Your task to perform on an android device: add a contact in the contacts app Image 0: 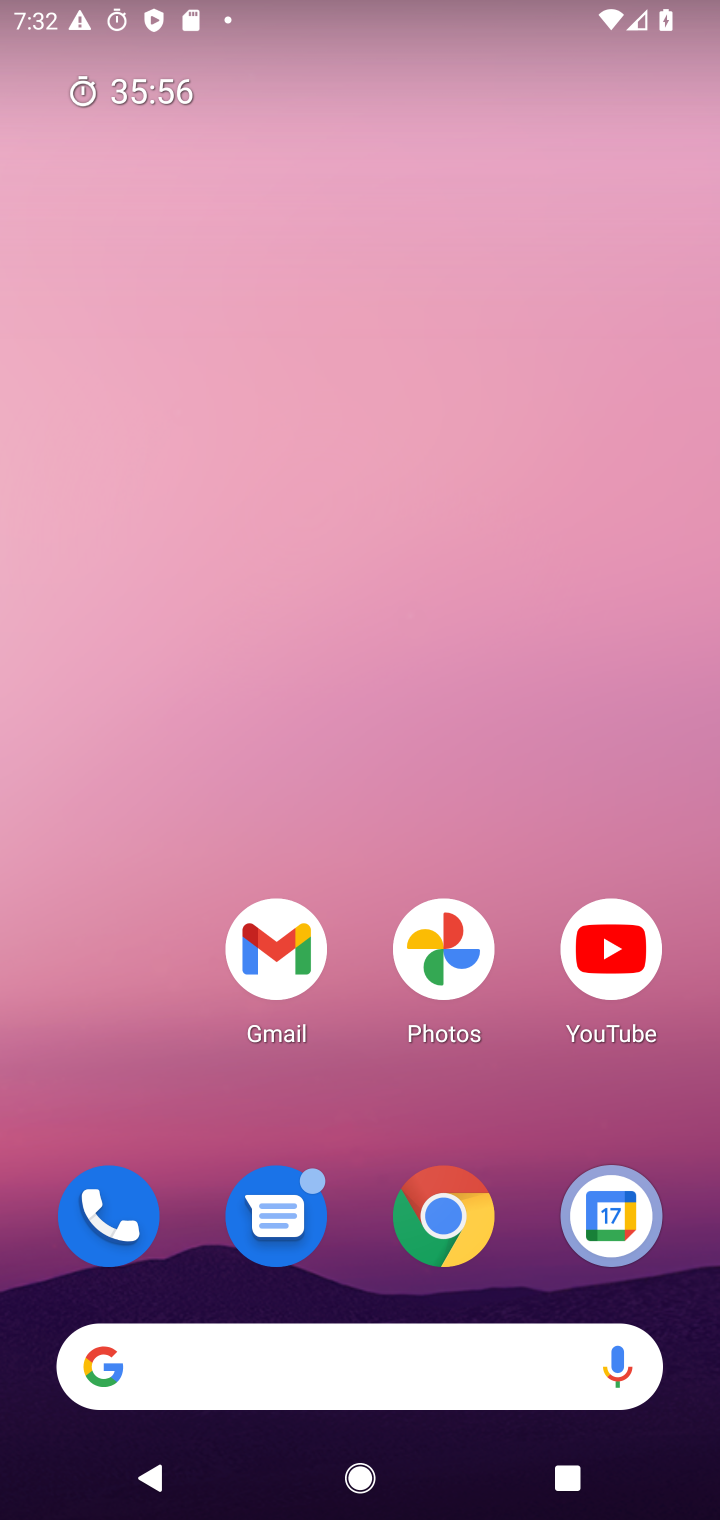
Step 0: drag from (526, 1132) to (407, 111)
Your task to perform on an android device: add a contact in the contacts app Image 1: 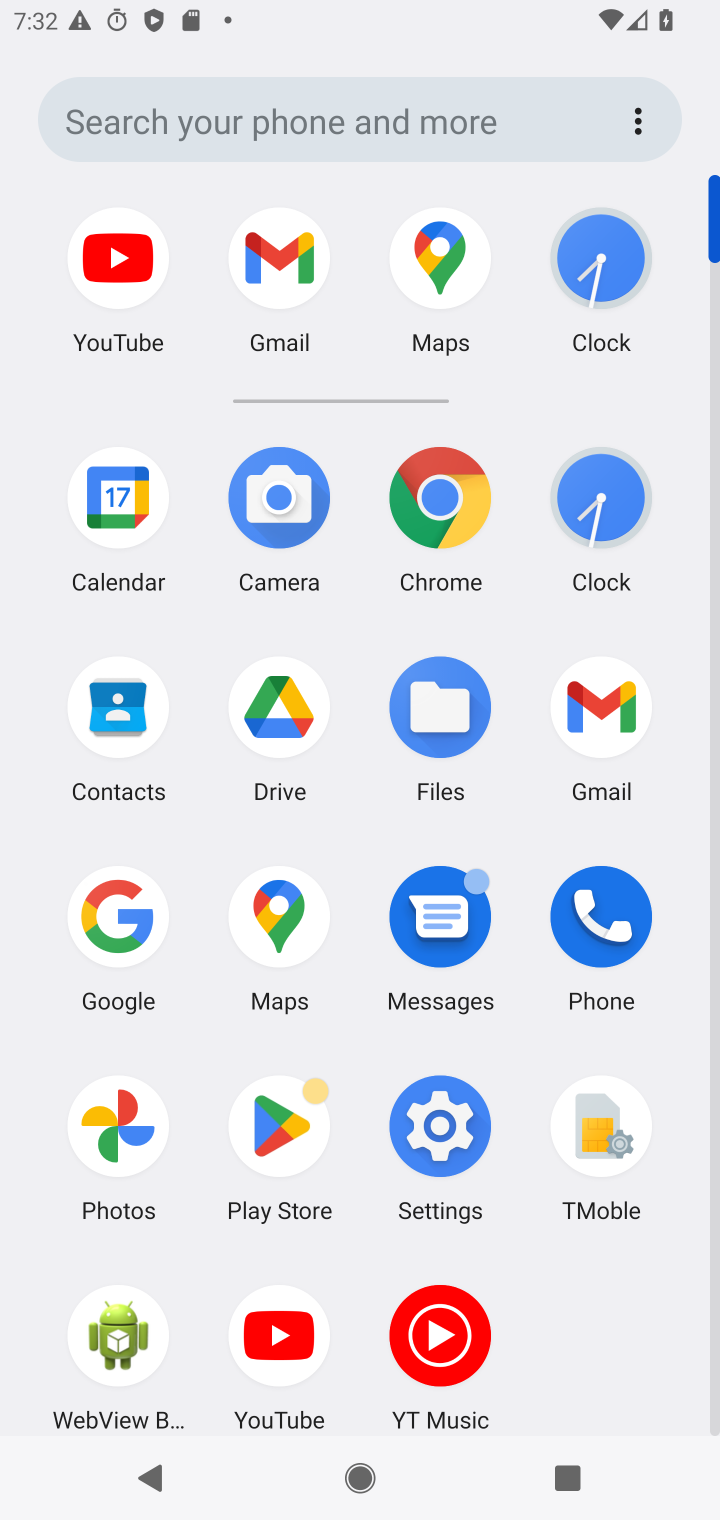
Step 1: click (136, 710)
Your task to perform on an android device: add a contact in the contacts app Image 2: 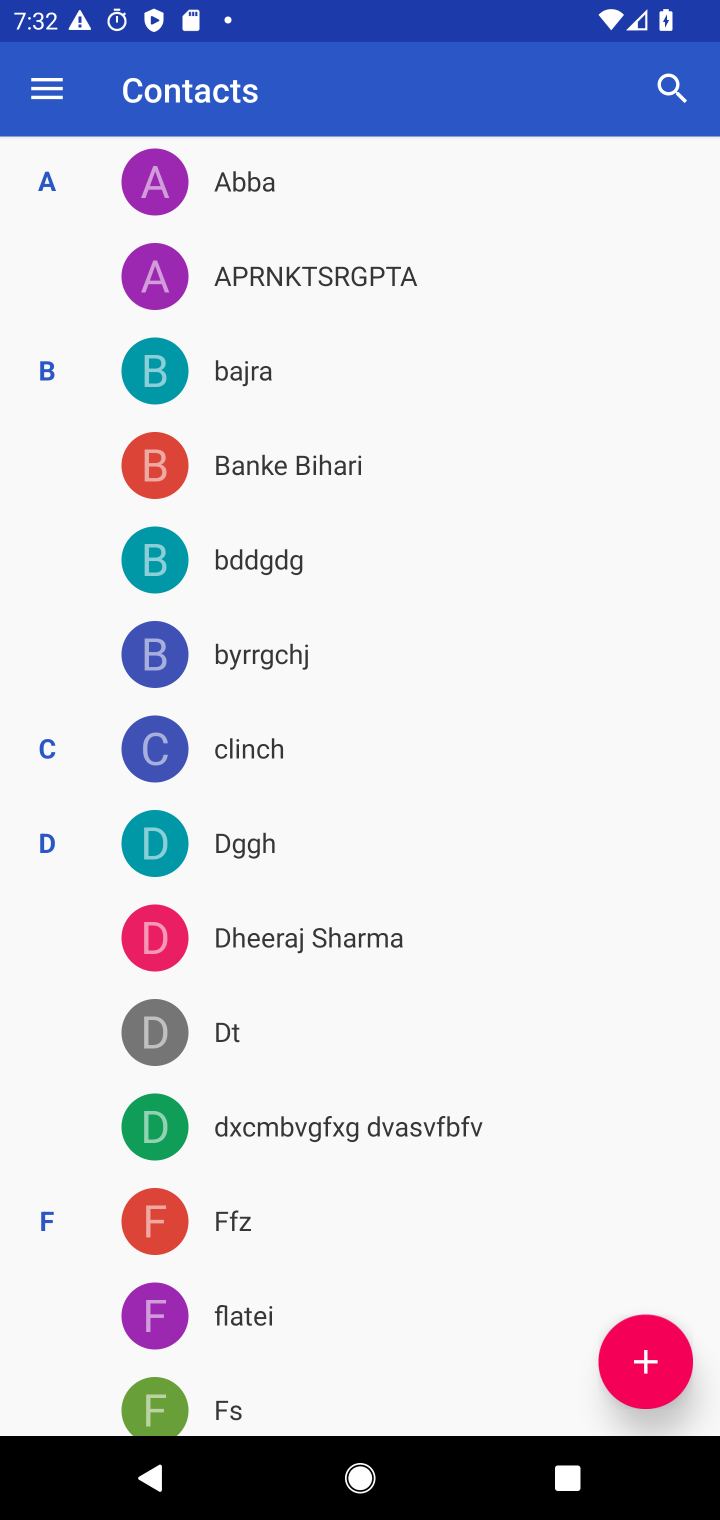
Step 2: click (652, 1380)
Your task to perform on an android device: add a contact in the contacts app Image 3: 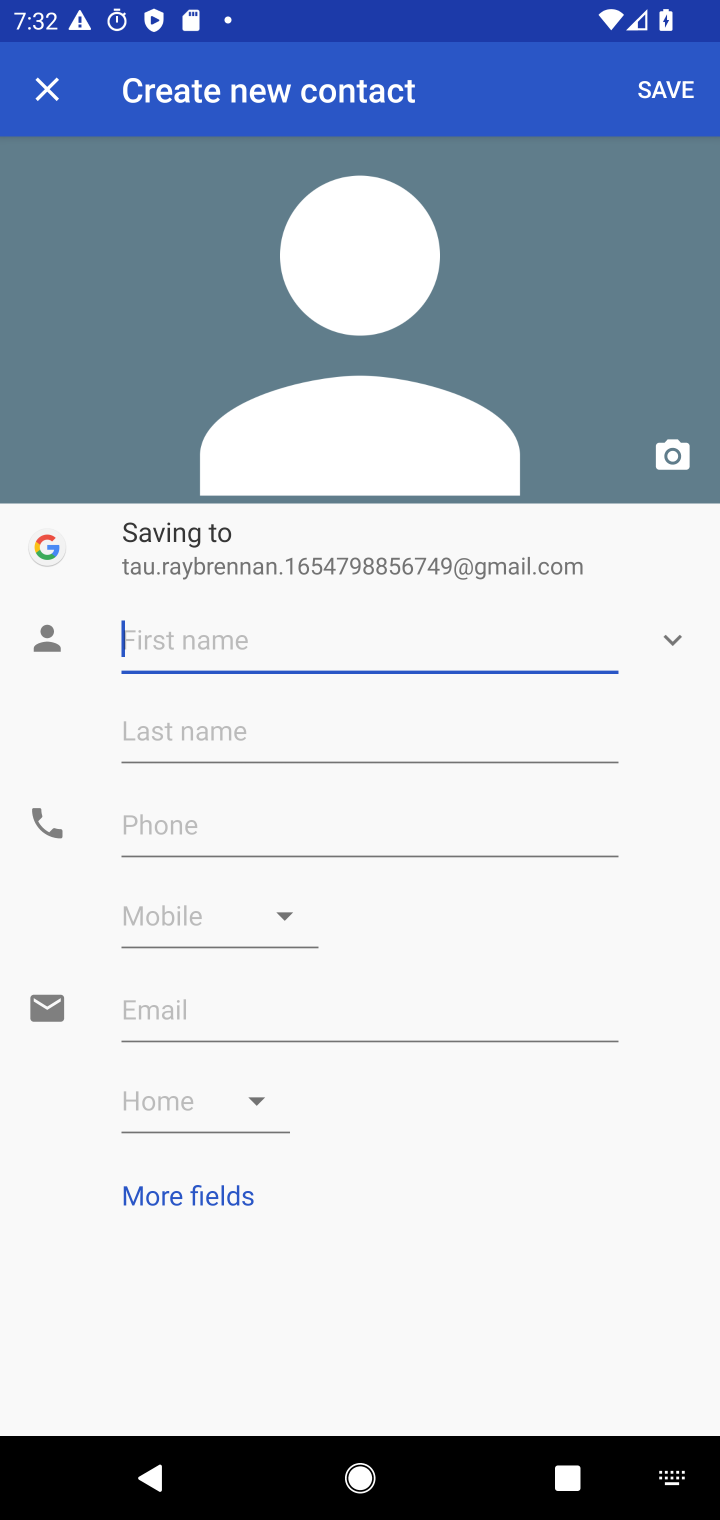
Step 3: type "mmm"
Your task to perform on an android device: add a contact in the contacts app Image 4: 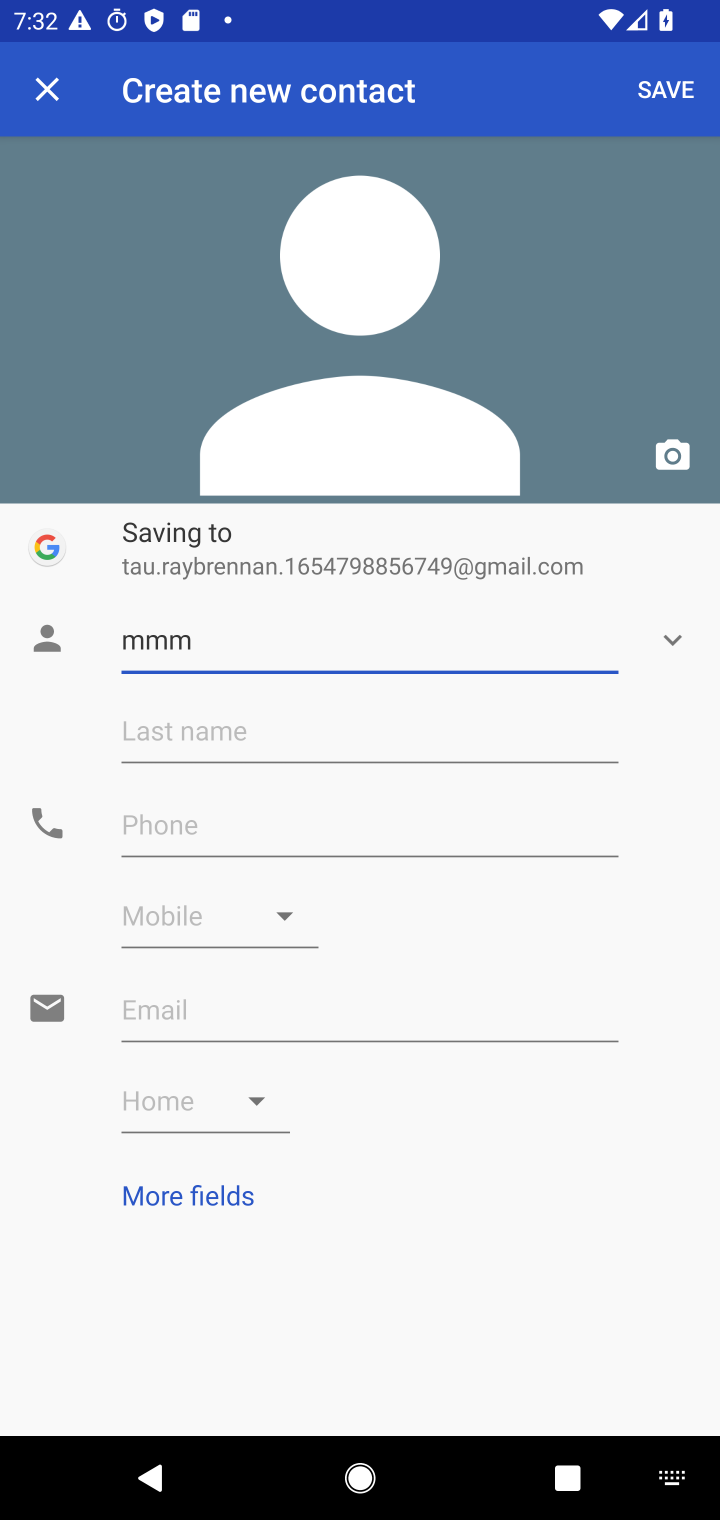
Step 4: click (514, 823)
Your task to perform on an android device: add a contact in the contacts app Image 5: 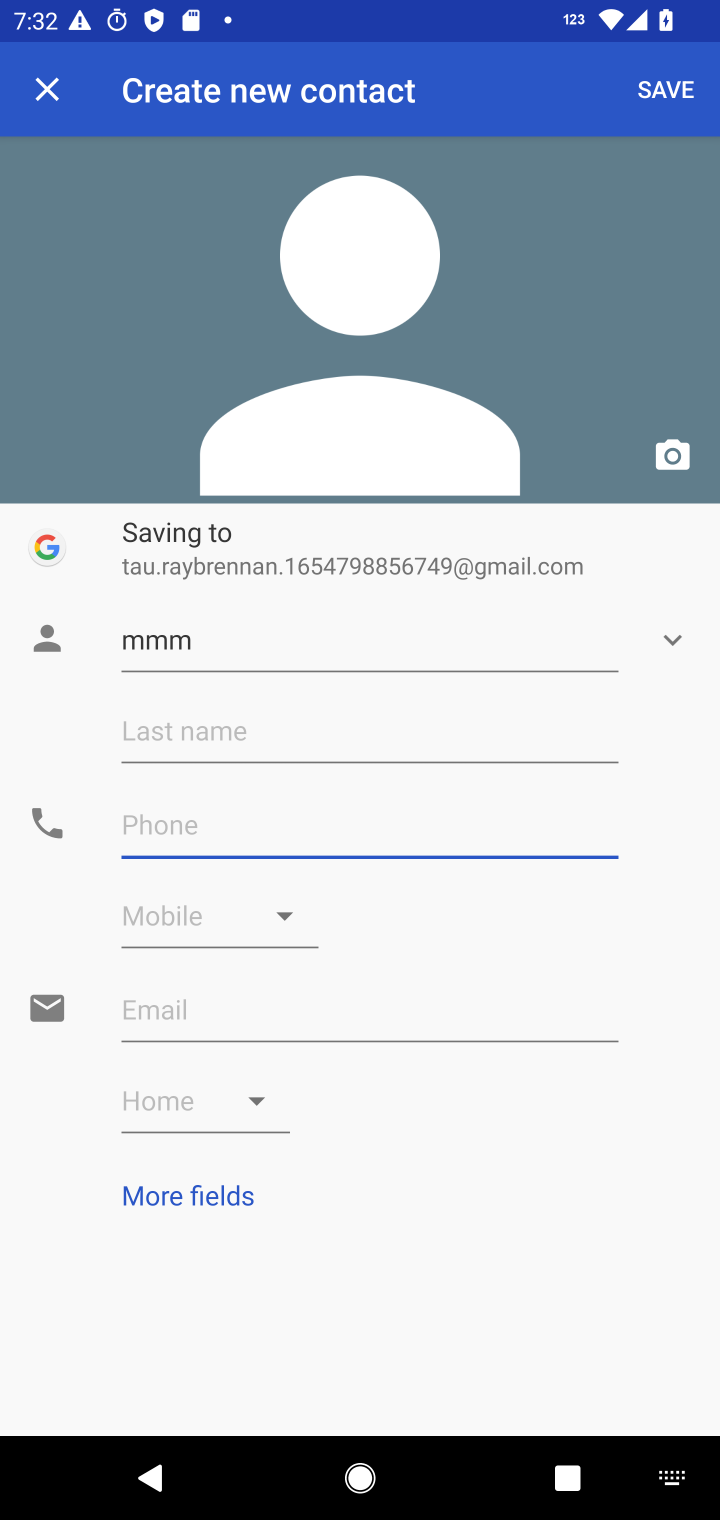
Step 5: type "0080"
Your task to perform on an android device: add a contact in the contacts app Image 6: 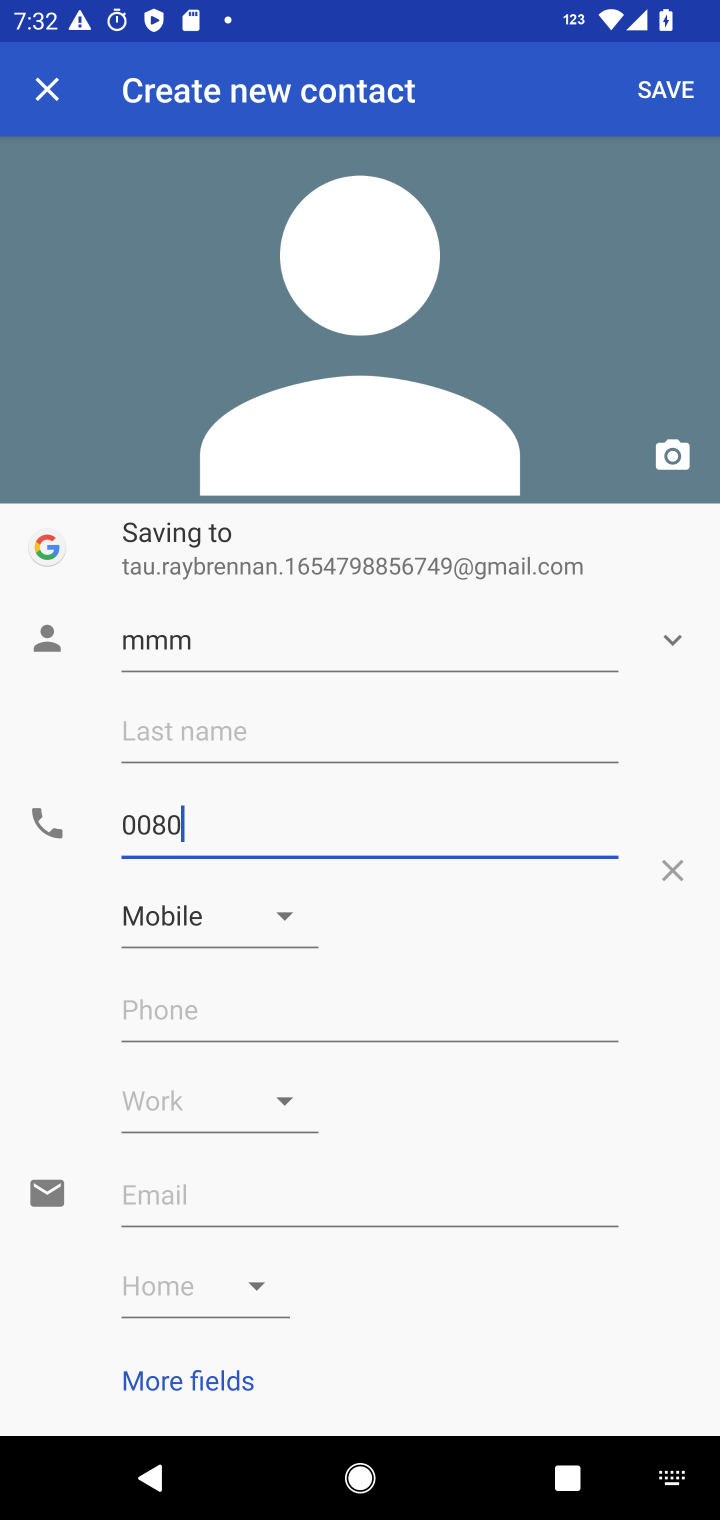
Step 6: click (669, 84)
Your task to perform on an android device: add a contact in the contacts app Image 7: 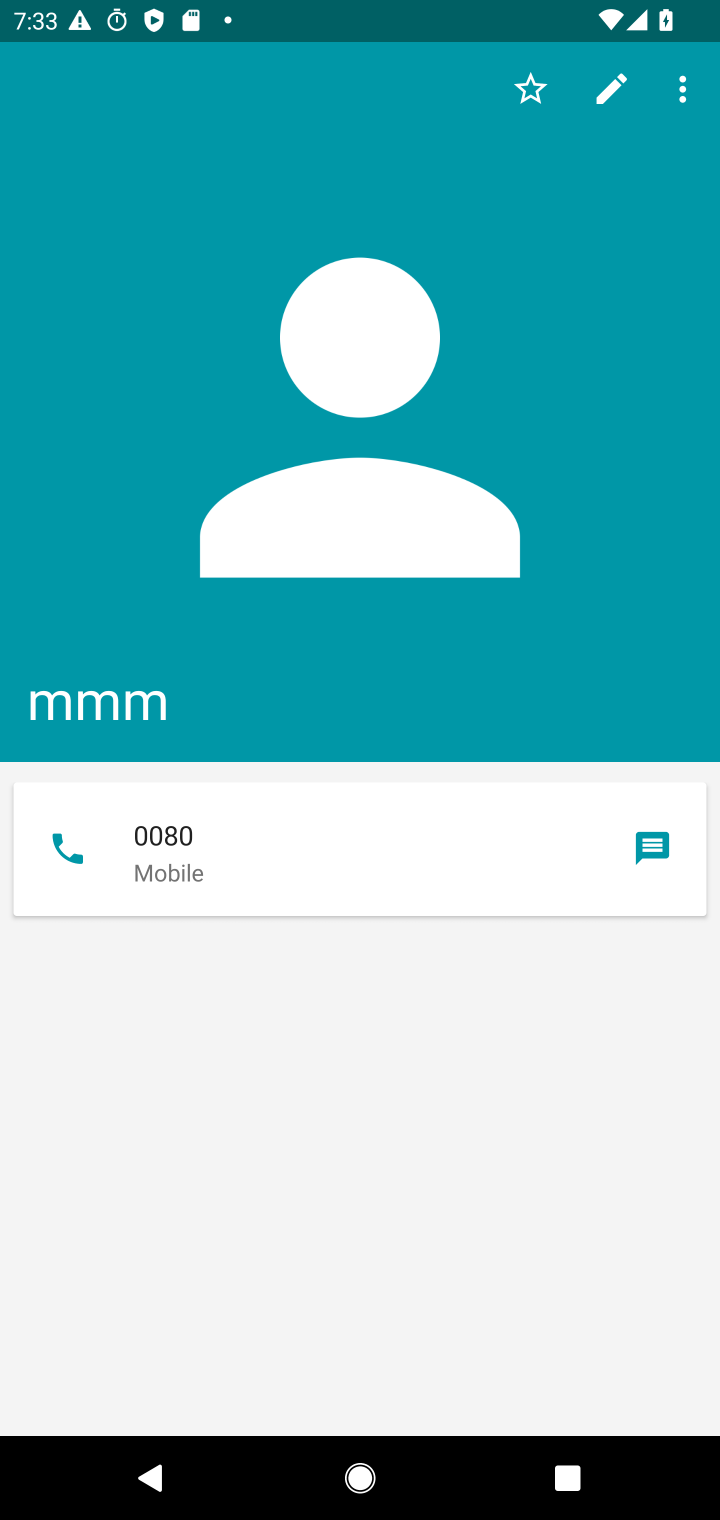
Step 7: task complete